Your task to perform on an android device: Open sound settings Image 0: 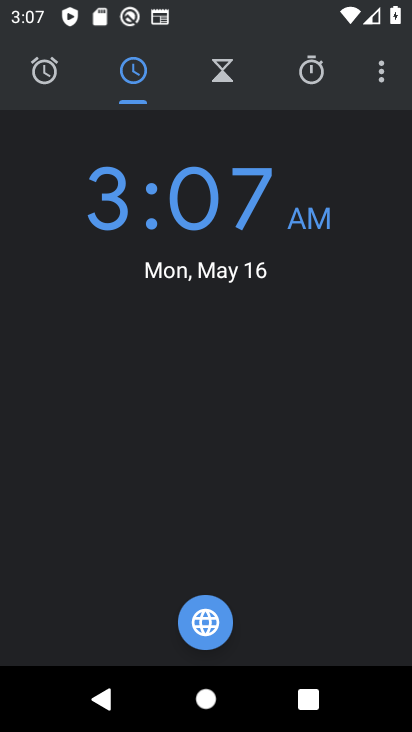
Step 0: press home button
Your task to perform on an android device: Open sound settings Image 1: 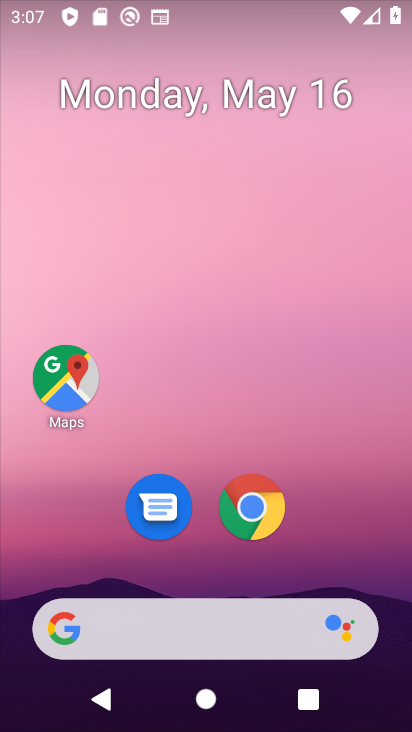
Step 1: drag from (346, 462) to (345, 0)
Your task to perform on an android device: Open sound settings Image 2: 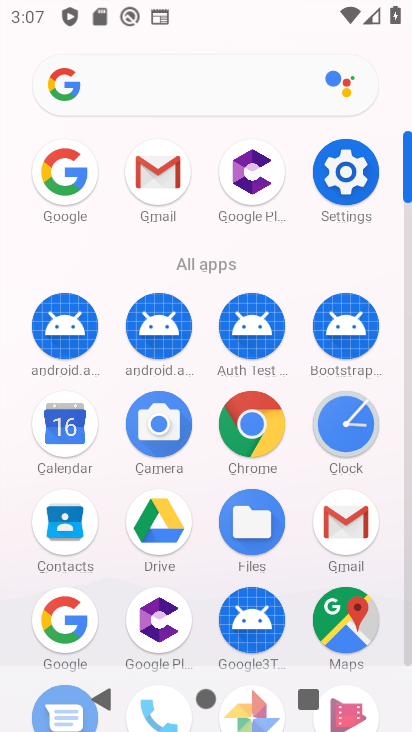
Step 2: click (333, 171)
Your task to perform on an android device: Open sound settings Image 3: 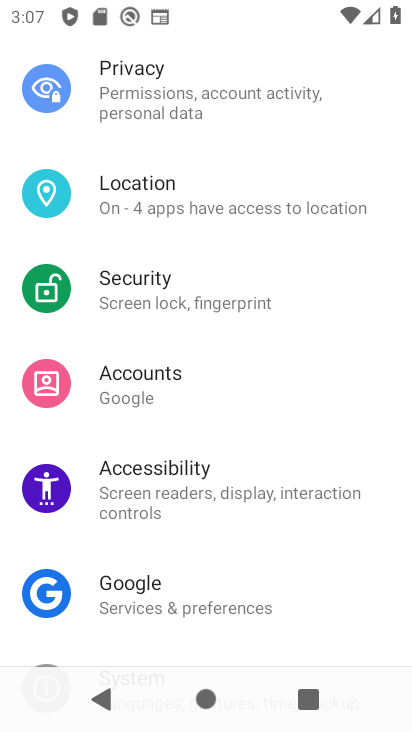
Step 3: drag from (216, 514) to (257, 142)
Your task to perform on an android device: Open sound settings Image 4: 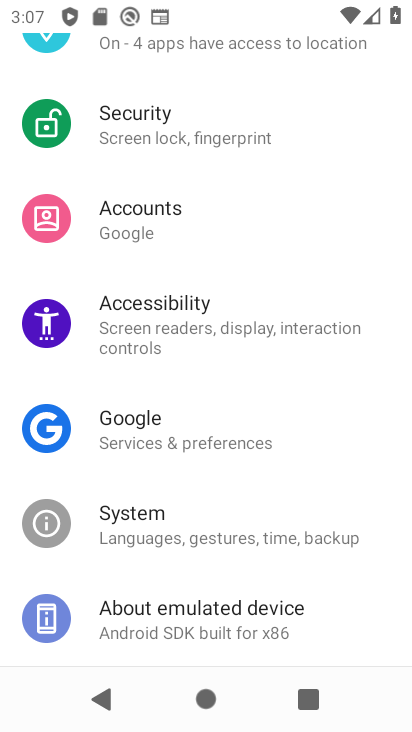
Step 4: drag from (267, 278) to (223, 583)
Your task to perform on an android device: Open sound settings Image 5: 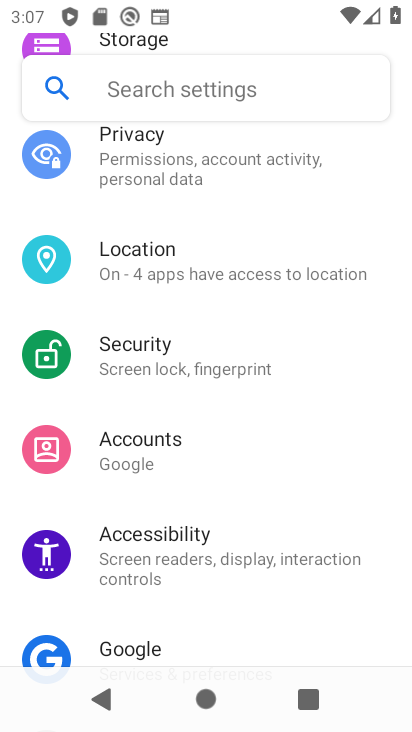
Step 5: drag from (206, 238) to (210, 539)
Your task to perform on an android device: Open sound settings Image 6: 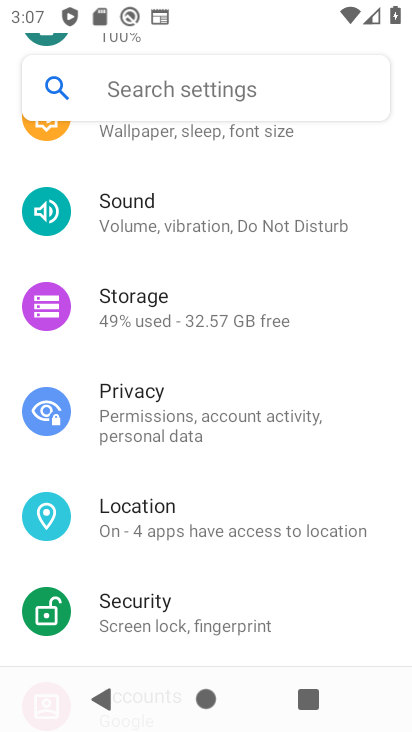
Step 6: click (171, 235)
Your task to perform on an android device: Open sound settings Image 7: 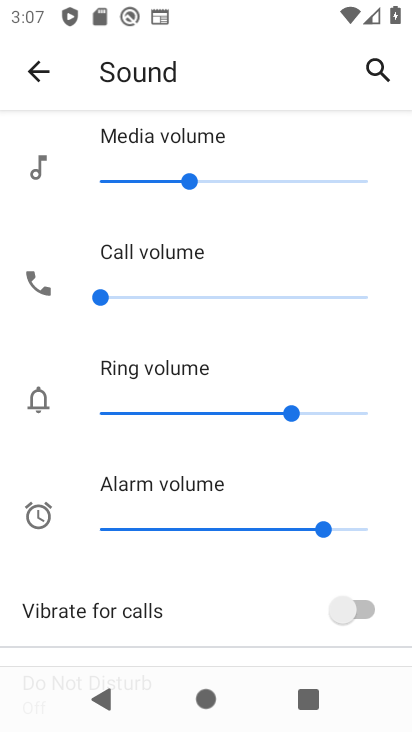
Step 7: task complete